Your task to perform on an android device: Empty the shopping cart on newegg.com. Image 0: 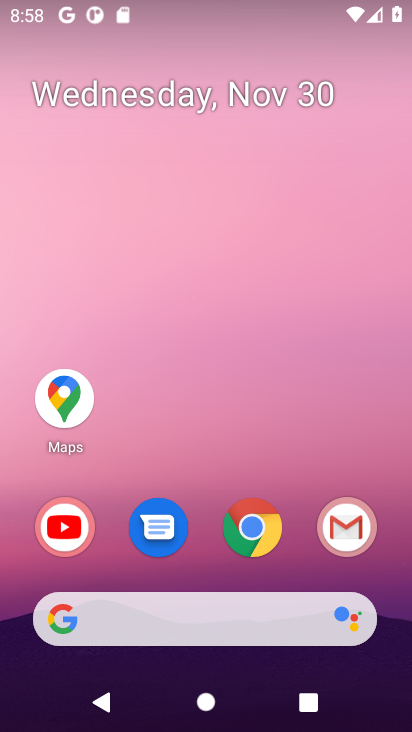
Step 0: click (262, 529)
Your task to perform on an android device: Empty the shopping cart on newegg.com. Image 1: 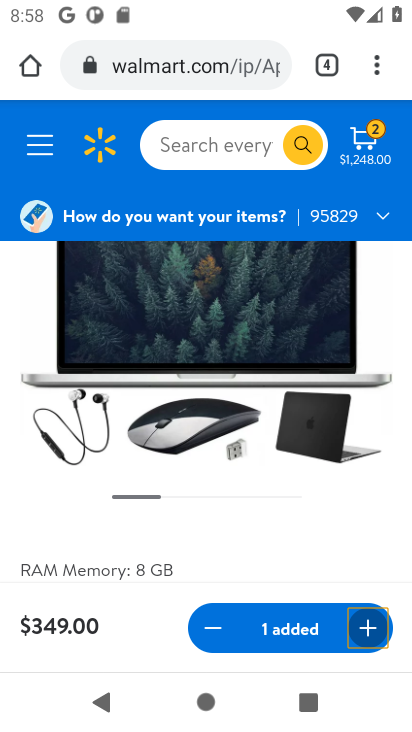
Step 1: click (213, 63)
Your task to perform on an android device: Empty the shopping cart on newegg.com. Image 2: 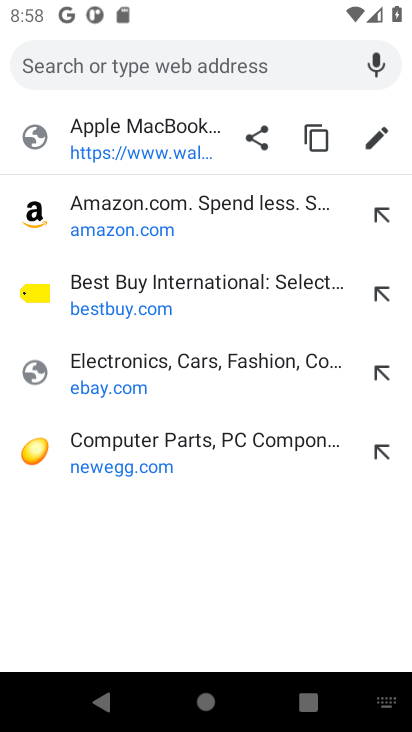
Step 2: click (170, 445)
Your task to perform on an android device: Empty the shopping cart on newegg.com. Image 3: 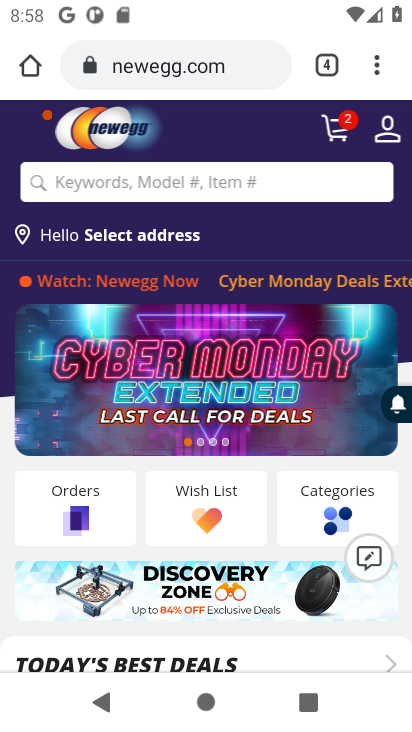
Step 3: click (333, 133)
Your task to perform on an android device: Empty the shopping cart on newegg.com. Image 4: 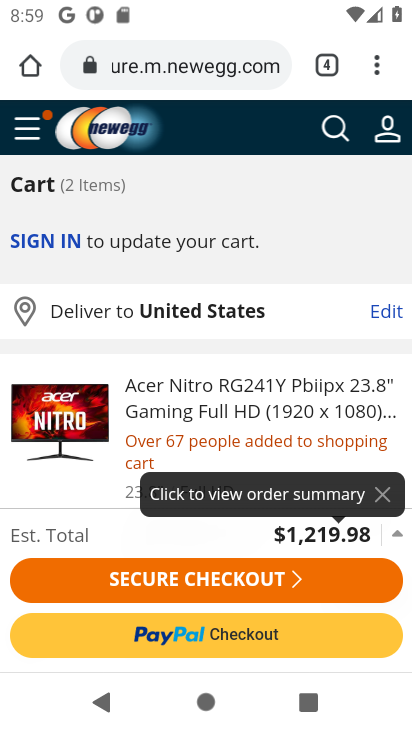
Step 4: drag from (252, 374) to (264, 83)
Your task to perform on an android device: Empty the shopping cart on newegg.com. Image 5: 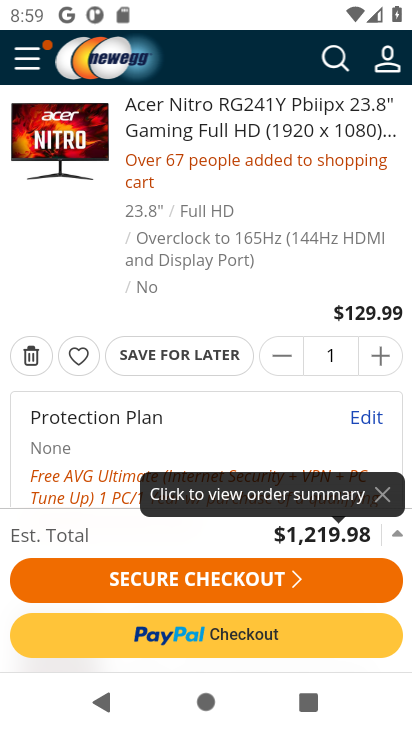
Step 5: click (24, 351)
Your task to perform on an android device: Empty the shopping cart on newegg.com. Image 6: 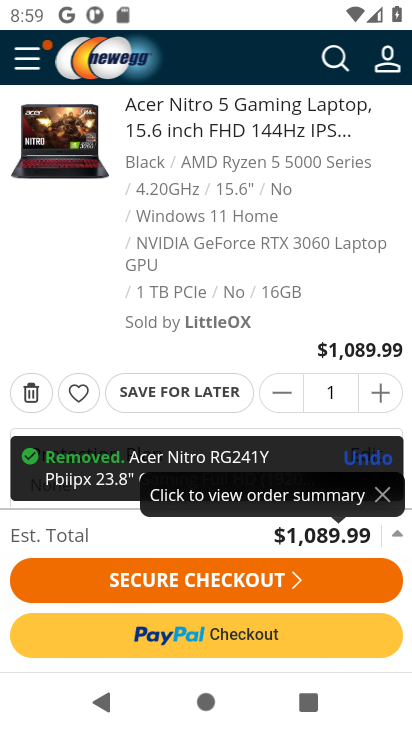
Step 6: click (30, 390)
Your task to perform on an android device: Empty the shopping cart on newegg.com. Image 7: 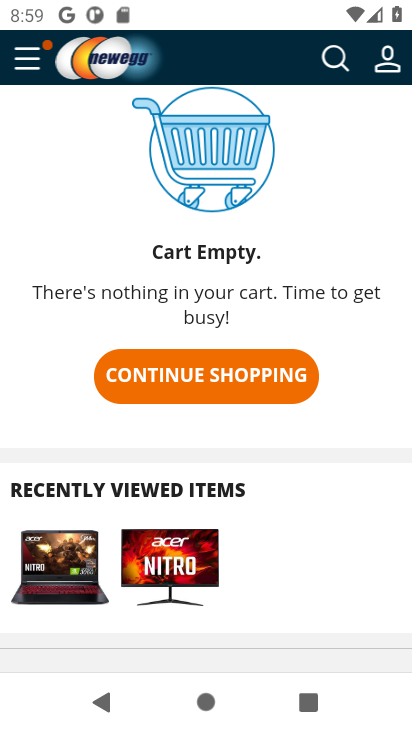
Step 7: task complete